Your task to perform on an android device: Open CNN.com Image 0: 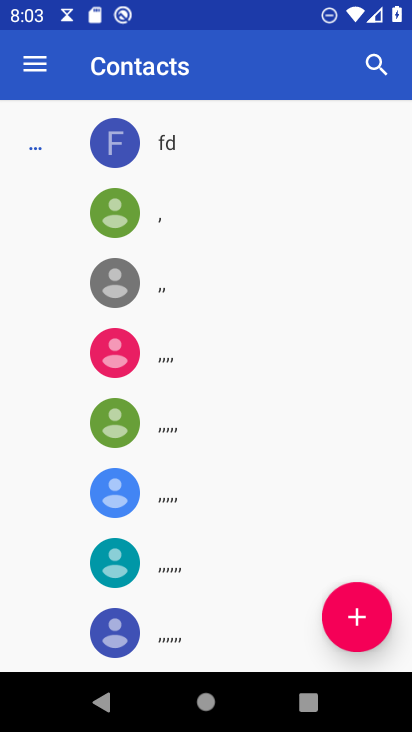
Step 0: press home button
Your task to perform on an android device: Open CNN.com Image 1: 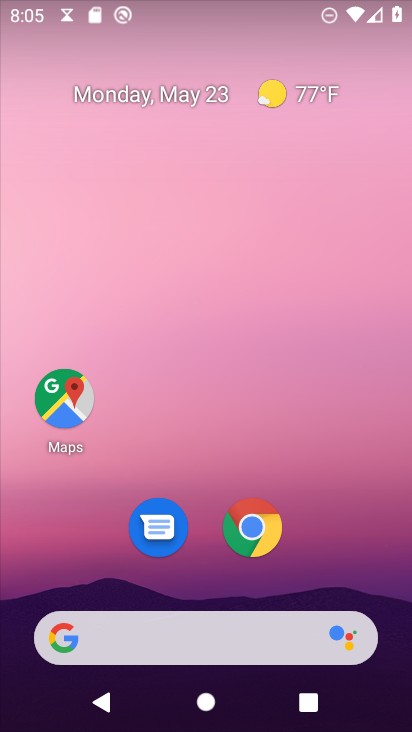
Step 1: drag from (260, 685) to (172, 202)
Your task to perform on an android device: Open CNN.com Image 2: 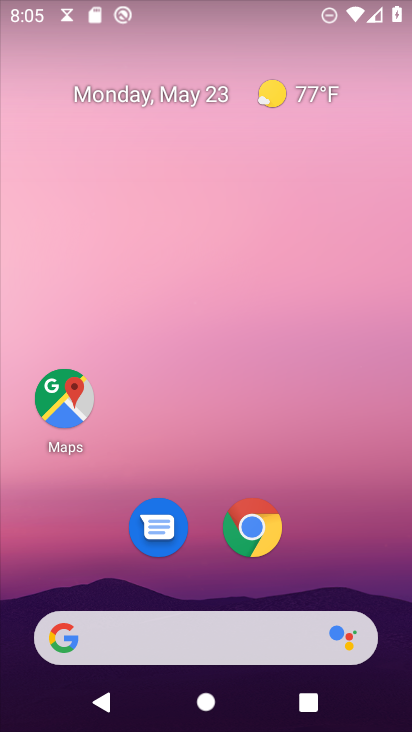
Step 2: drag from (258, 652) to (277, 33)
Your task to perform on an android device: Open CNN.com Image 3: 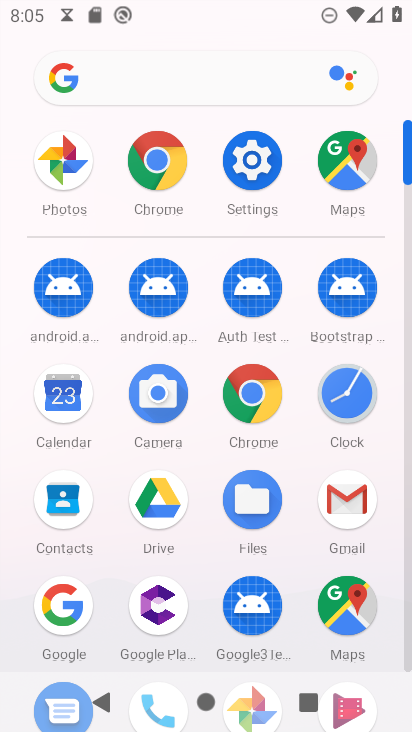
Step 3: click (179, 165)
Your task to perform on an android device: Open CNN.com Image 4: 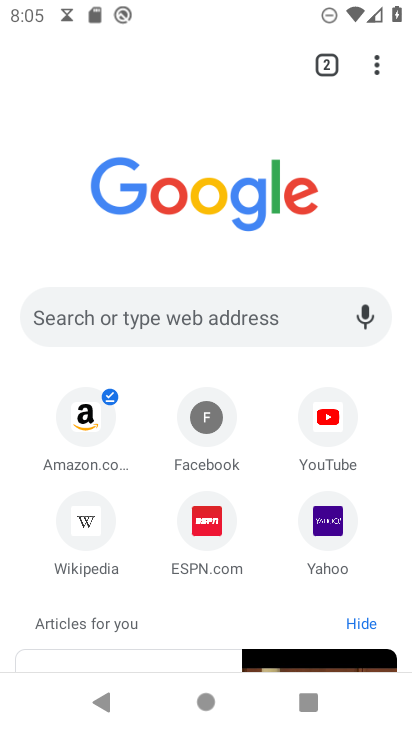
Step 4: click (123, 319)
Your task to perform on an android device: Open CNN.com Image 5: 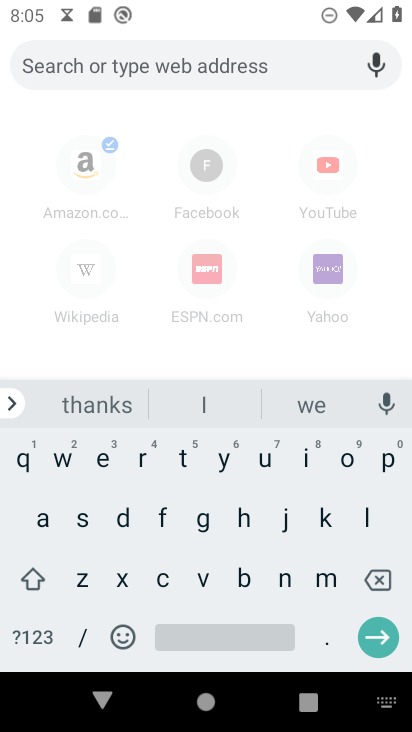
Step 5: click (163, 577)
Your task to perform on an android device: Open CNN.com Image 6: 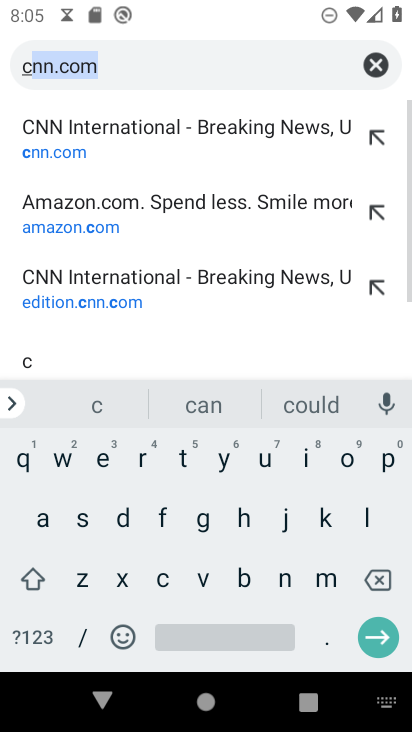
Step 6: click (144, 74)
Your task to perform on an android device: Open CNN.com Image 7: 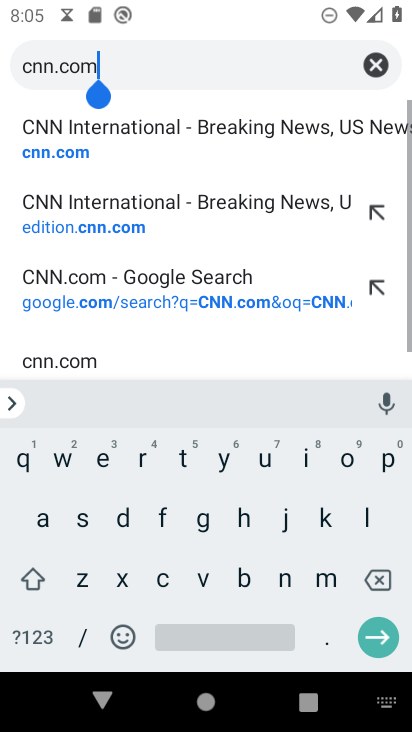
Step 7: click (383, 630)
Your task to perform on an android device: Open CNN.com Image 8: 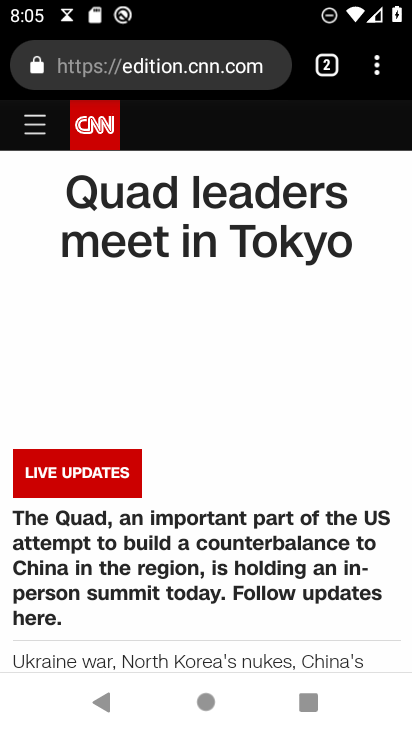
Step 8: task complete